Your task to perform on an android device: Go to display settings Image 0: 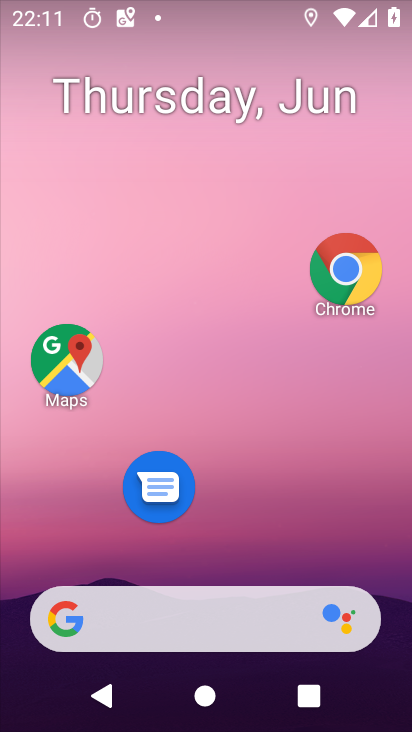
Step 0: click (220, 152)
Your task to perform on an android device: Go to display settings Image 1: 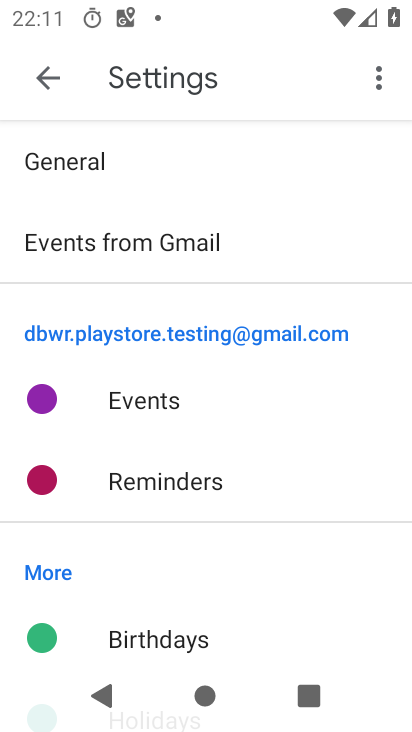
Step 1: press home button
Your task to perform on an android device: Go to display settings Image 2: 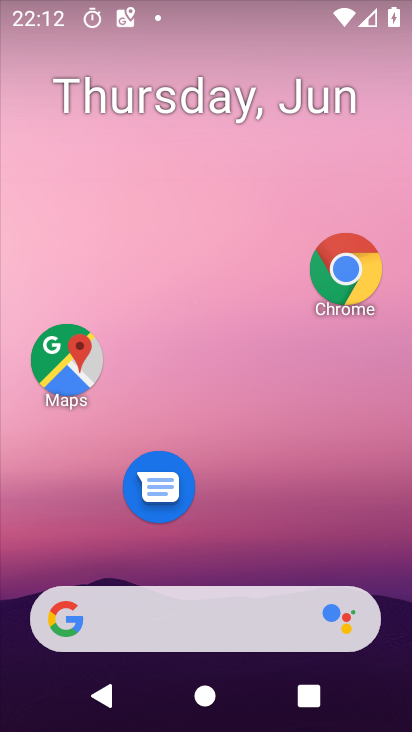
Step 2: drag from (253, 500) to (332, 193)
Your task to perform on an android device: Go to display settings Image 3: 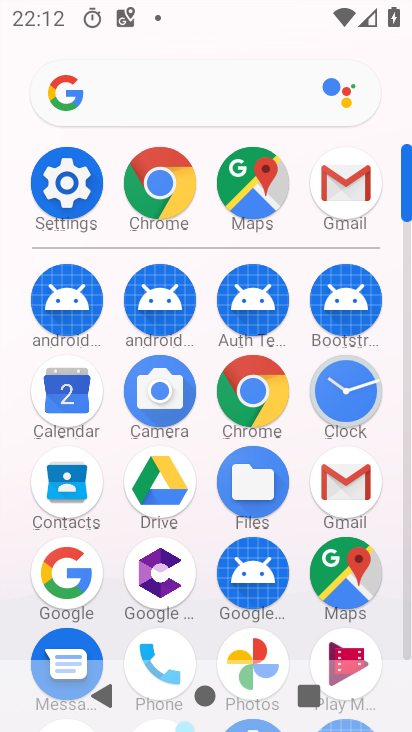
Step 3: click (72, 223)
Your task to perform on an android device: Go to display settings Image 4: 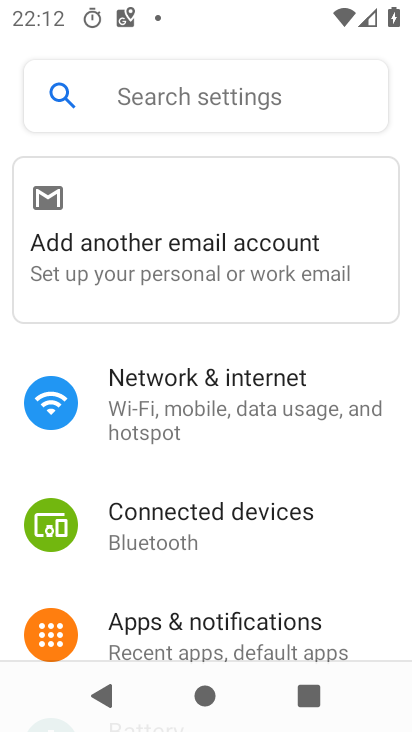
Step 4: drag from (221, 556) to (287, 82)
Your task to perform on an android device: Go to display settings Image 5: 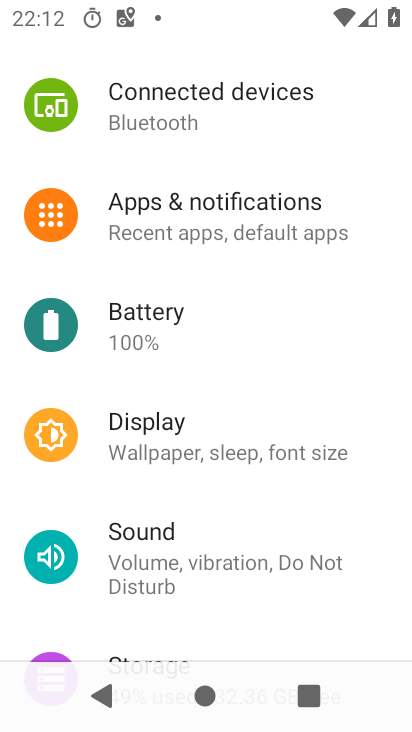
Step 5: drag from (243, 581) to (296, 143)
Your task to perform on an android device: Go to display settings Image 6: 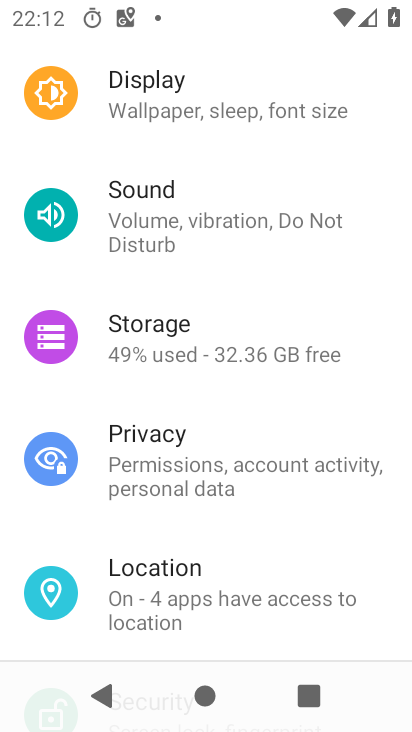
Step 6: click (180, 102)
Your task to perform on an android device: Go to display settings Image 7: 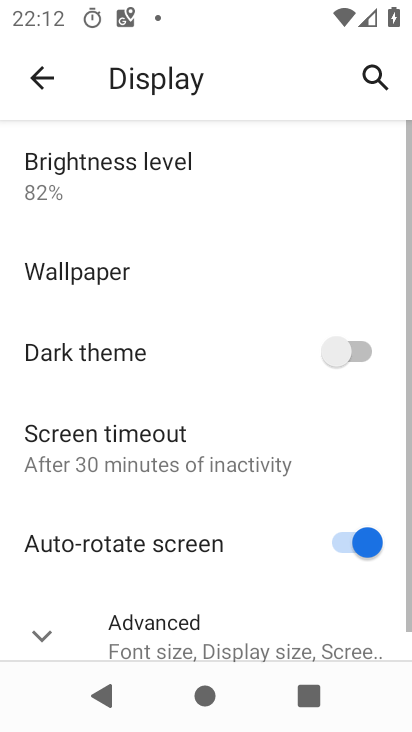
Step 7: task complete